Your task to perform on an android device: check google app version Image 0: 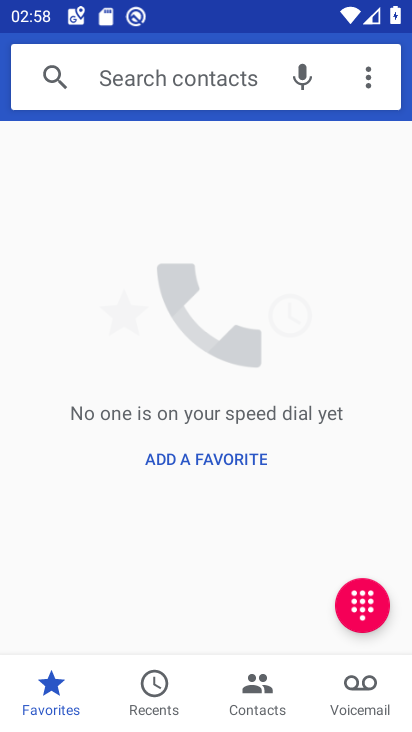
Step 0: press home button
Your task to perform on an android device: check google app version Image 1: 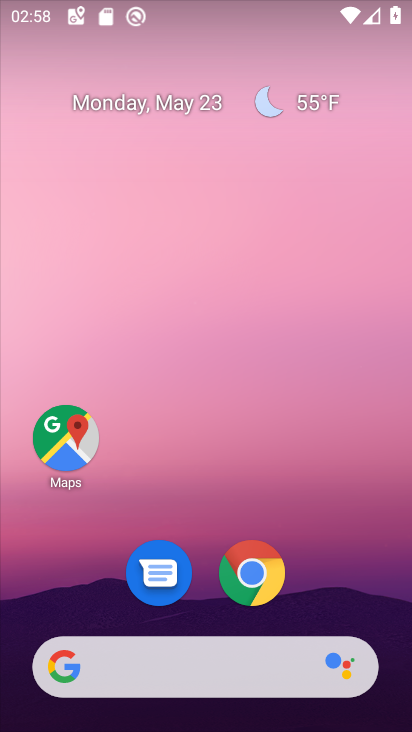
Step 1: drag from (329, 557) to (283, 31)
Your task to perform on an android device: check google app version Image 2: 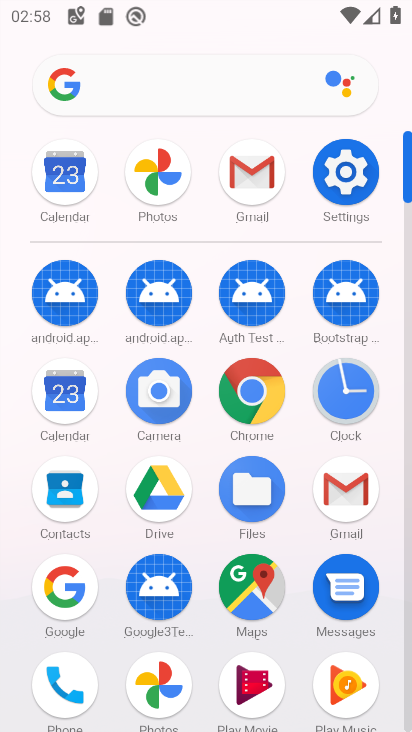
Step 2: click (73, 584)
Your task to perform on an android device: check google app version Image 3: 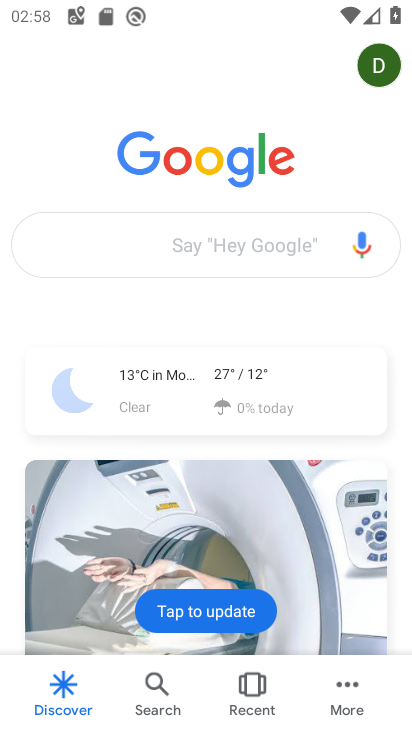
Step 3: click (385, 65)
Your task to perform on an android device: check google app version Image 4: 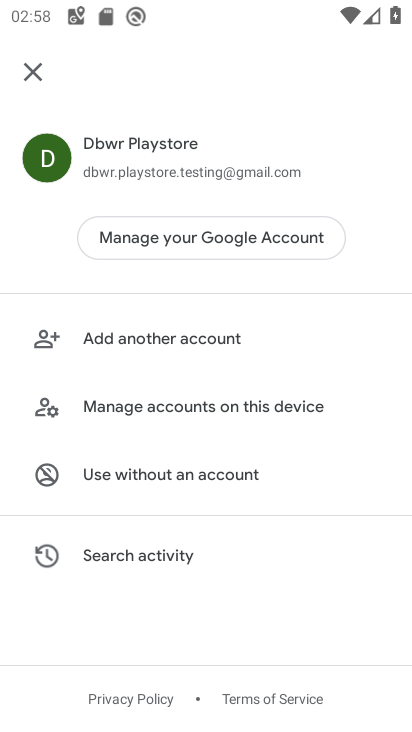
Step 4: drag from (300, 612) to (310, 244)
Your task to perform on an android device: check google app version Image 5: 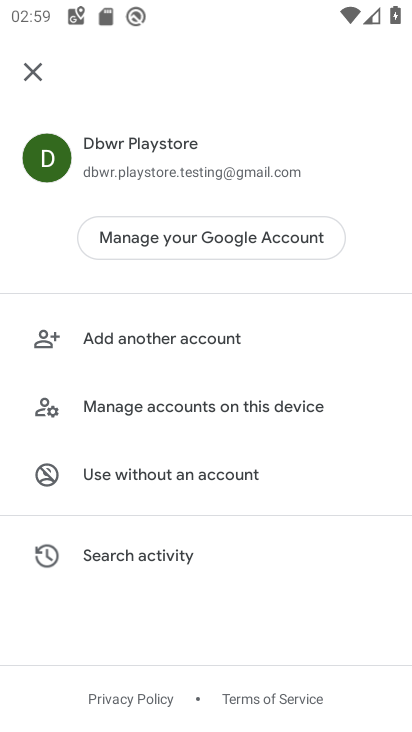
Step 5: click (254, 232)
Your task to perform on an android device: check google app version Image 6: 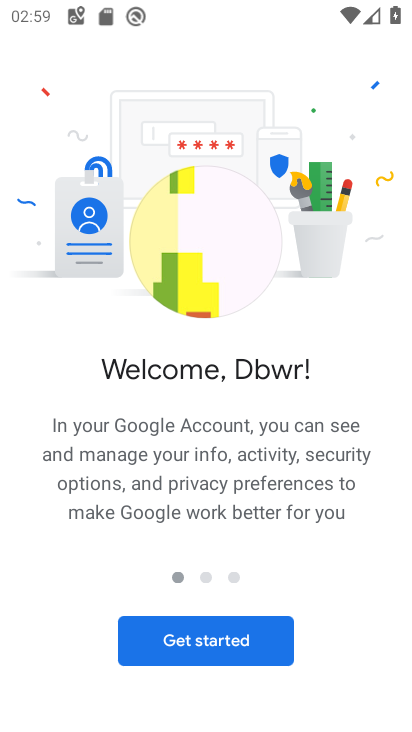
Step 6: press back button
Your task to perform on an android device: check google app version Image 7: 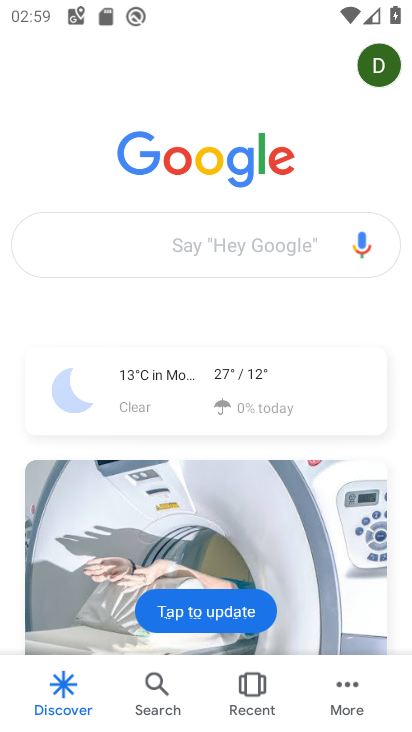
Step 7: click (351, 686)
Your task to perform on an android device: check google app version Image 8: 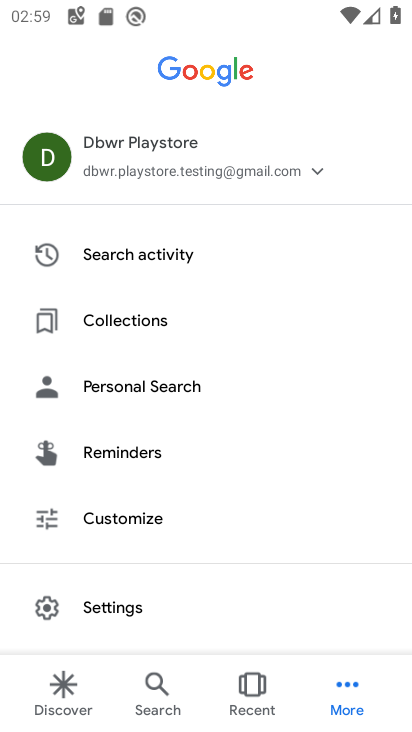
Step 8: click (132, 610)
Your task to perform on an android device: check google app version Image 9: 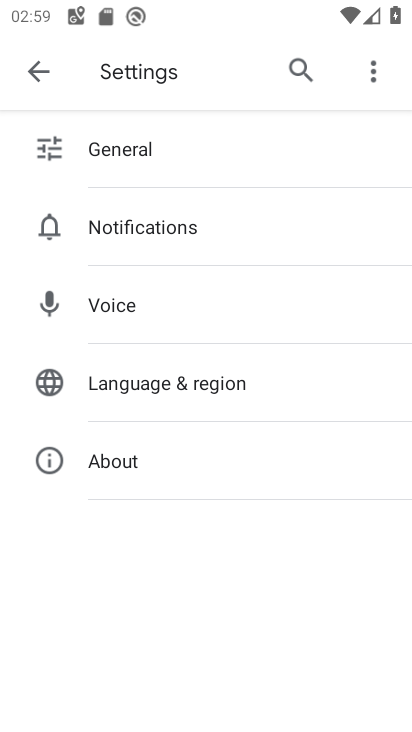
Step 9: click (132, 468)
Your task to perform on an android device: check google app version Image 10: 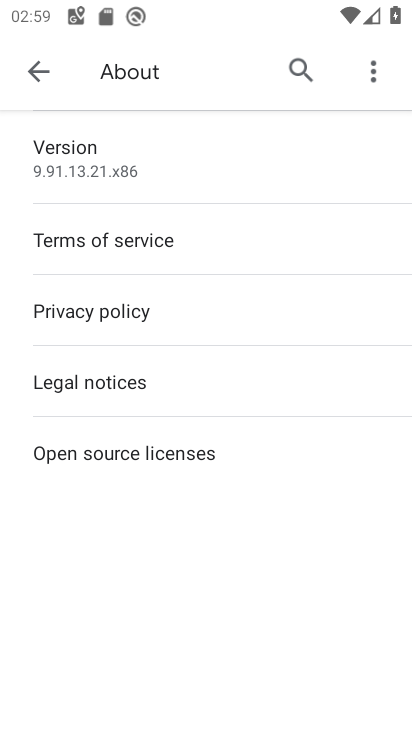
Step 10: click (163, 167)
Your task to perform on an android device: check google app version Image 11: 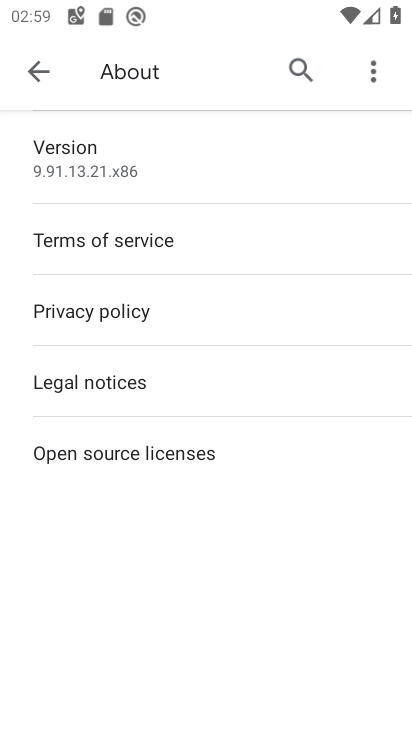
Step 11: task complete